Your task to perform on an android device: See recent photos Image 0: 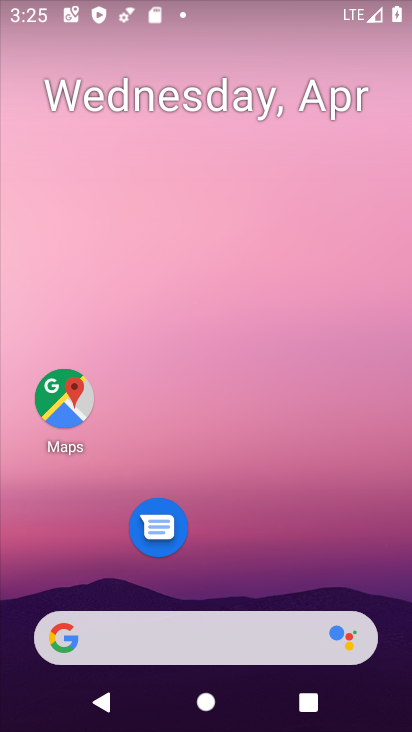
Step 0: drag from (225, 378) to (232, 73)
Your task to perform on an android device: See recent photos Image 1: 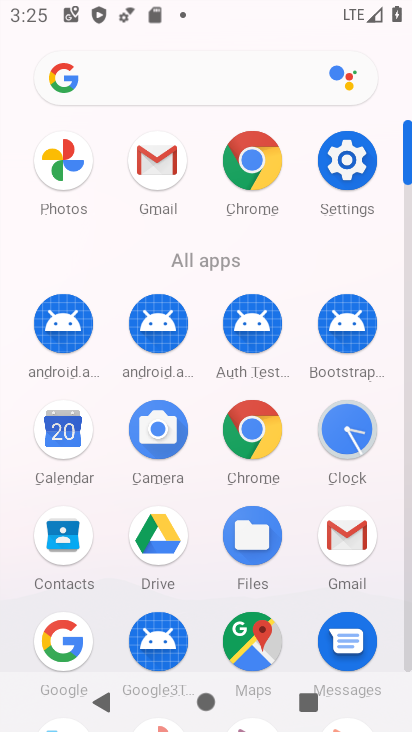
Step 1: click (74, 154)
Your task to perform on an android device: See recent photos Image 2: 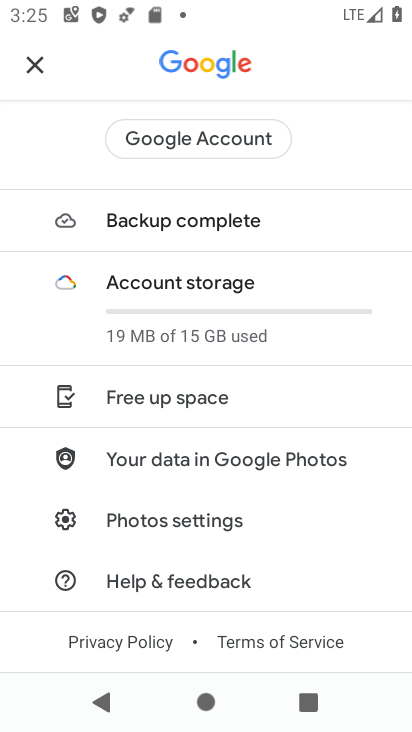
Step 2: click (33, 69)
Your task to perform on an android device: See recent photos Image 3: 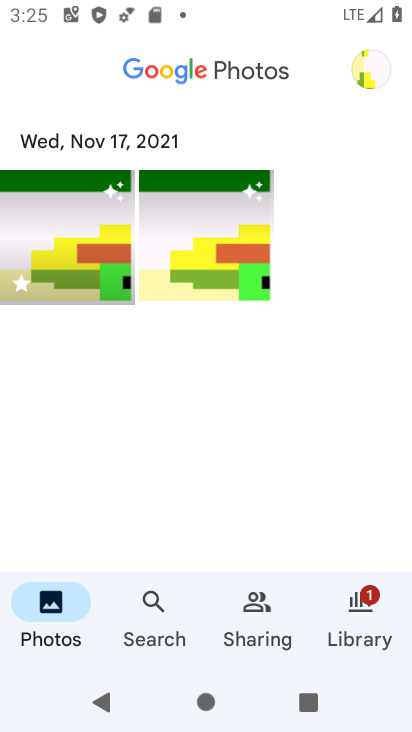
Step 3: task complete